Your task to perform on an android device: Open settings on Google Maps Image 0: 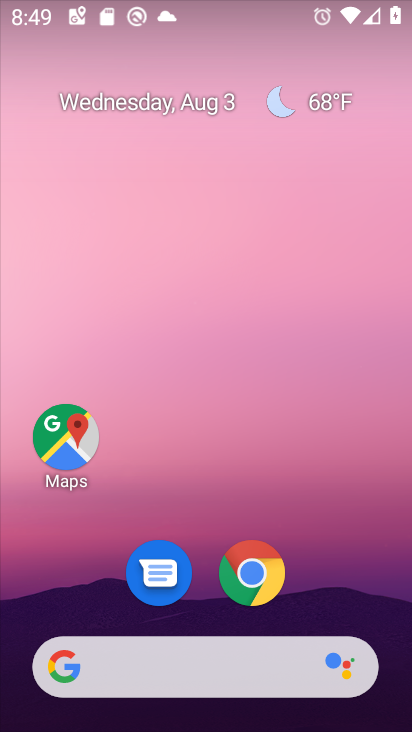
Step 0: click (64, 440)
Your task to perform on an android device: Open settings on Google Maps Image 1: 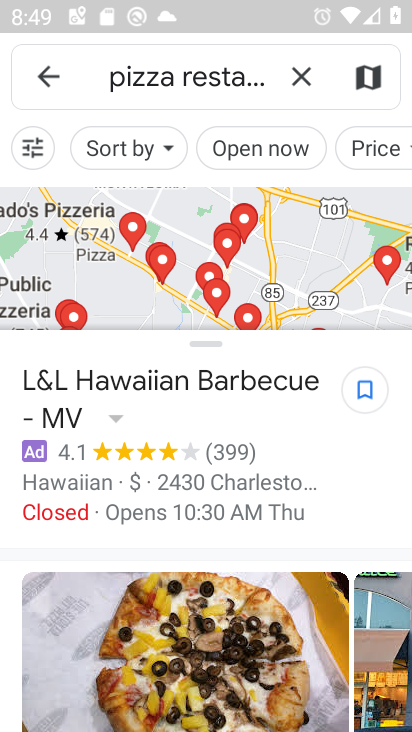
Step 1: click (297, 81)
Your task to perform on an android device: Open settings on Google Maps Image 2: 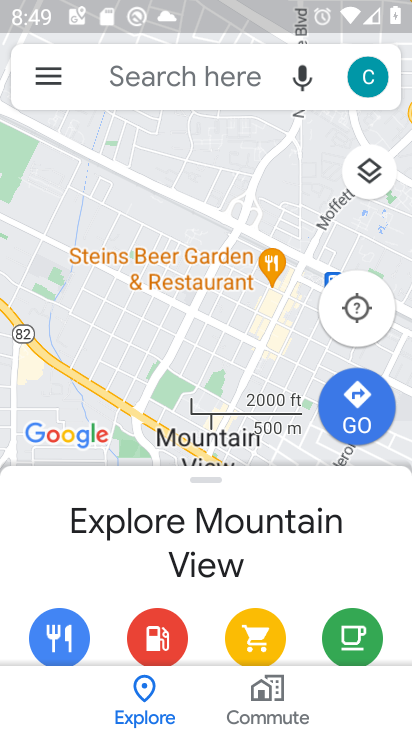
Step 2: click (46, 80)
Your task to perform on an android device: Open settings on Google Maps Image 3: 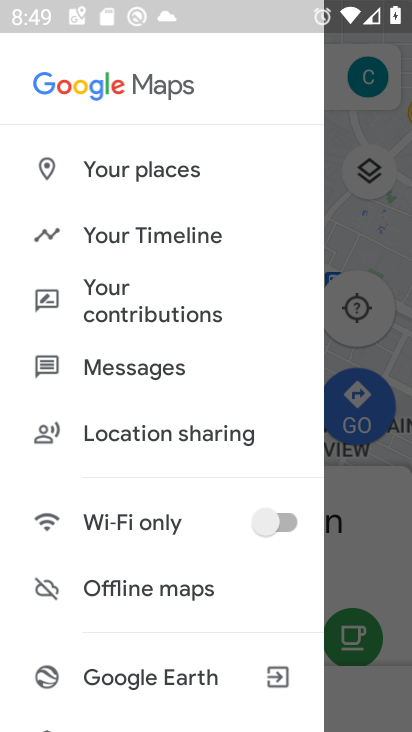
Step 3: drag from (189, 611) to (181, 158)
Your task to perform on an android device: Open settings on Google Maps Image 4: 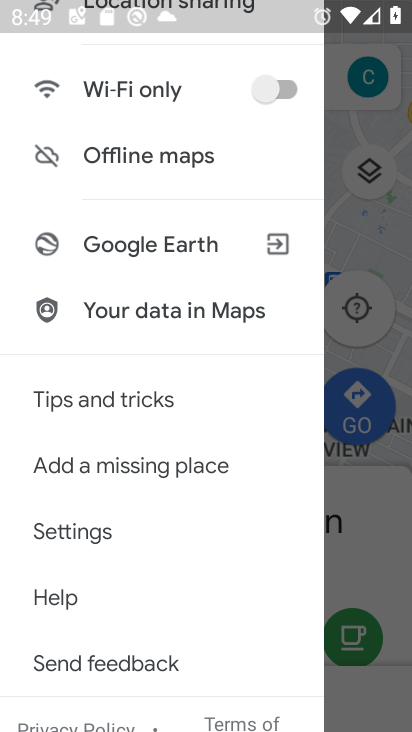
Step 4: click (85, 542)
Your task to perform on an android device: Open settings on Google Maps Image 5: 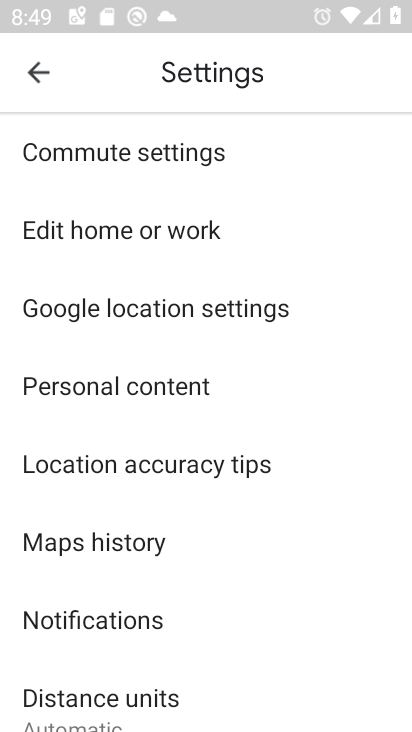
Step 5: task complete